Your task to perform on an android device: View the shopping cart on target.com. Search for jbl charge 4 on target.com, select the first entry, and add it to the cart. Image 0: 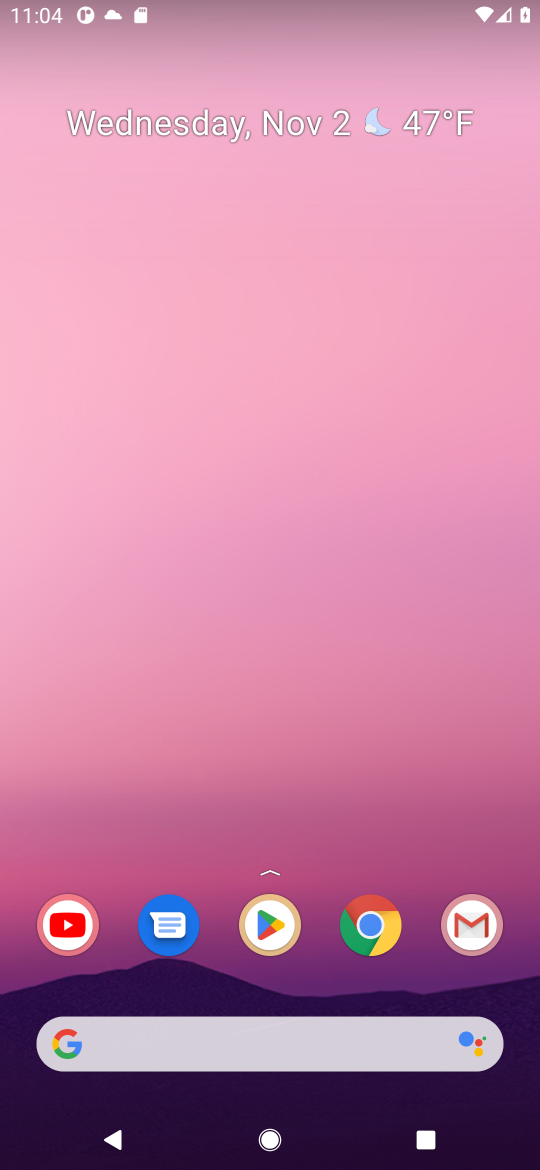
Step 0: click (243, 1042)
Your task to perform on an android device: View the shopping cart on target.com. Search for jbl charge 4 on target.com, select the first entry, and add it to the cart. Image 1: 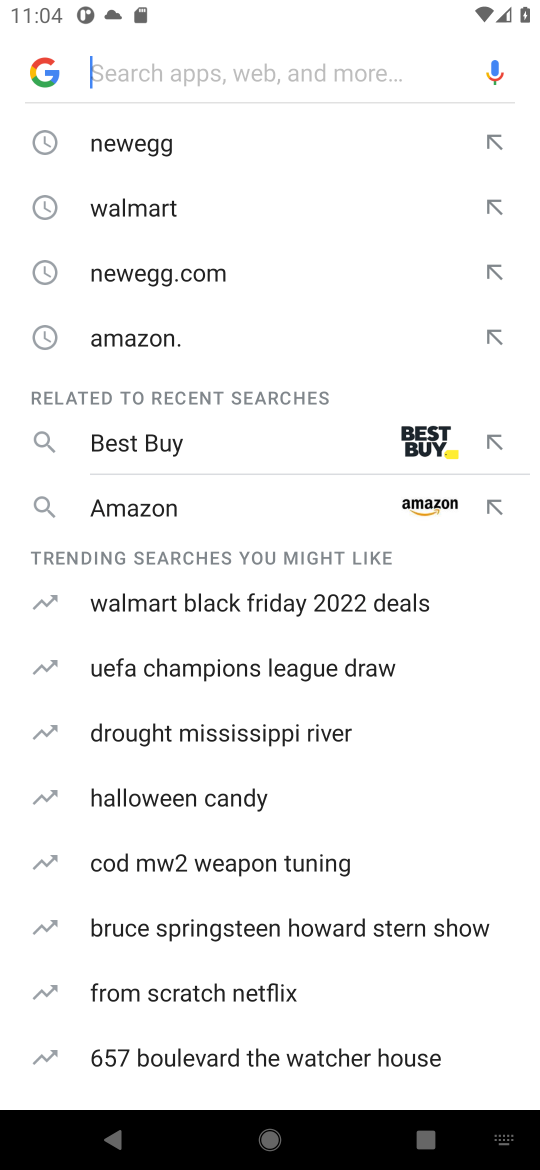
Step 1: type "target"
Your task to perform on an android device: View the shopping cart on target.com. Search for jbl charge 4 on target.com, select the first entry, and add it to the cart. Image 2: 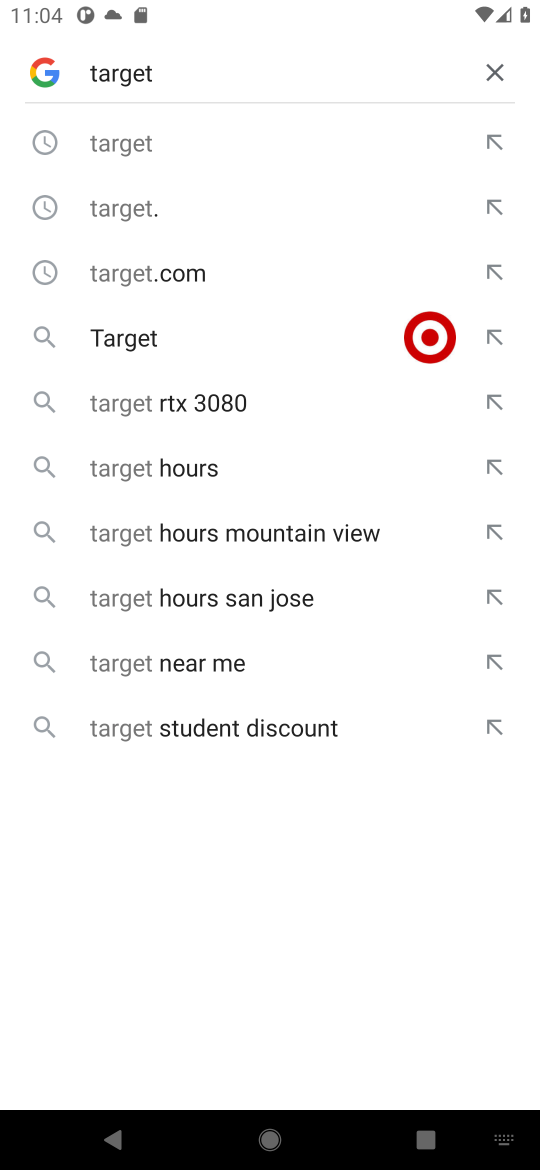
Step 2: click (85, 337)
Your task to perform on an android device: View the shopping cart on target.com. Search for jbl charge 4 on target.com, select the first entry, and add it to the cart. Image 3: 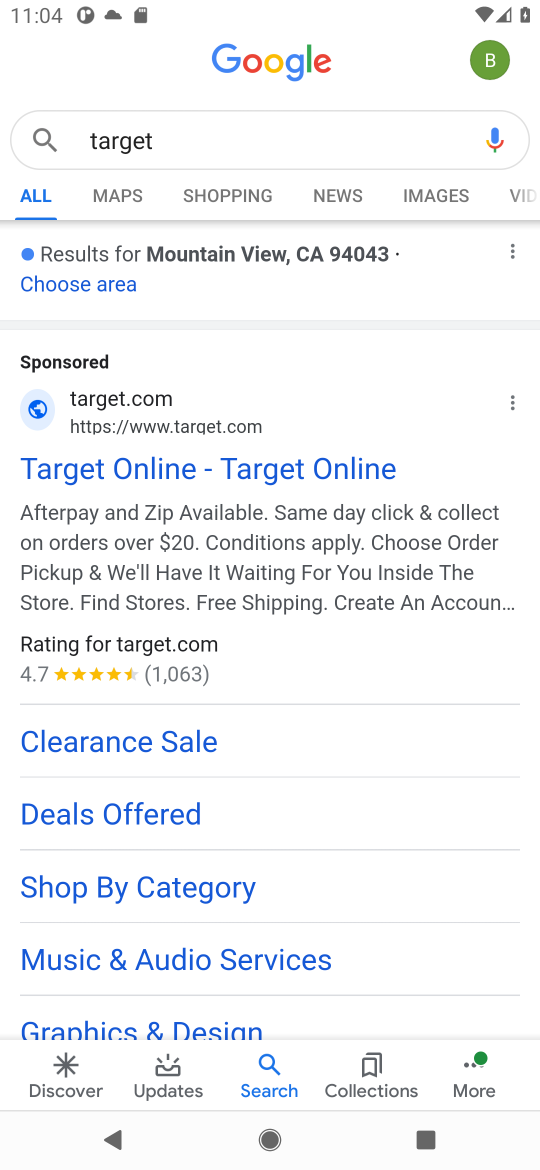
Step 3: click (177, 404)
Your task to perform on an android device: View the shopping cart on target.com. Search for jbl charge 4 on target.com, select the first entry, and add it to the cart. Image 4: 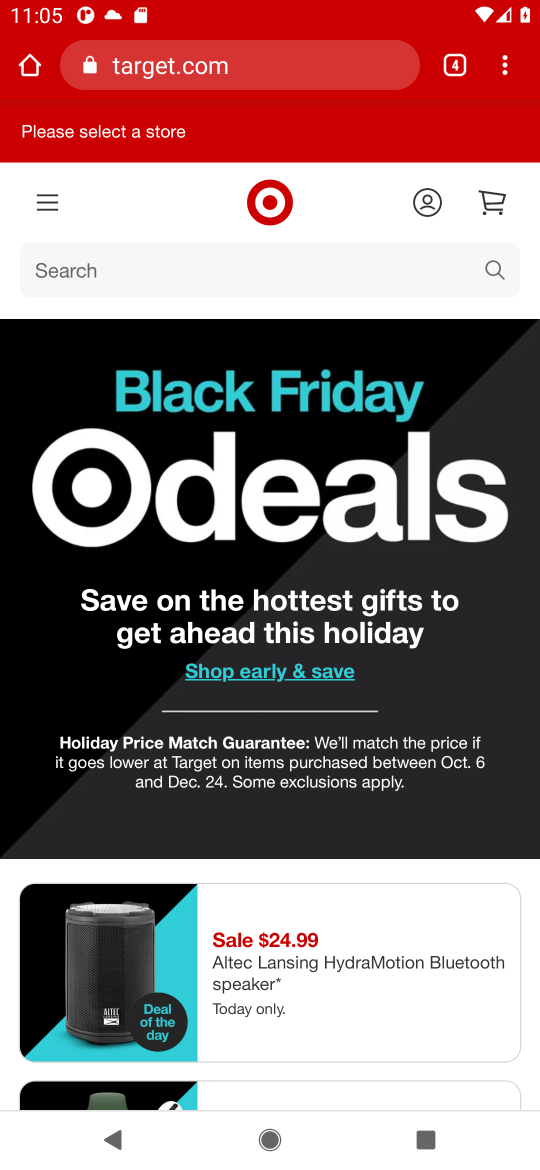
Step 4: click (239, 270)
Your task to perform on an android device: View the shopping cart on target.com. Search for jbl charge 4 on target.com, select the first entry, and add it to the cart. Image 5: 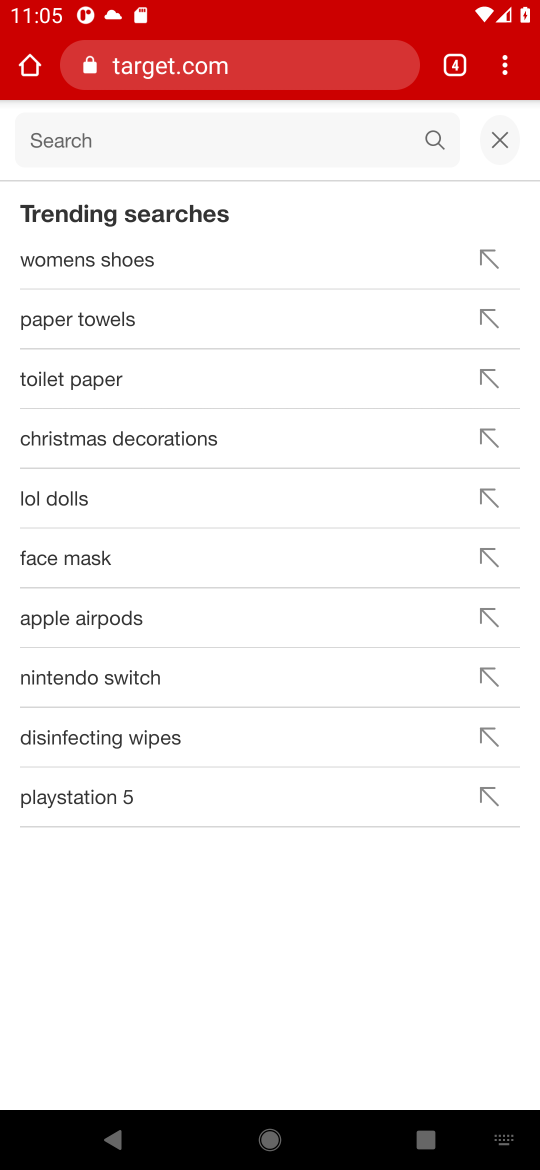
Step 5: type "jbl charge 4"
Your task to perform on an android device: View the shopping cart on target.com. Search for jbl charge 4 on target.com, select the first entry, and add it to the cart. Image 6: 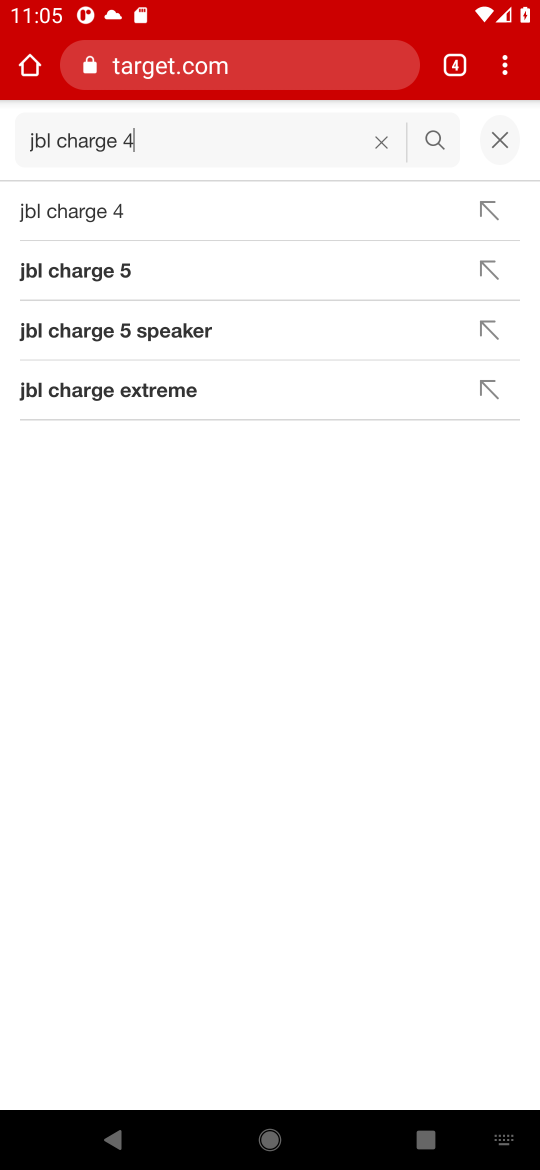
Step 6: click (106, 213)
Your task to perform on an android device: View the shopping cart on target.com. Search for jbl charge 4 on target.com, select the first entry, and add it to the cart. Image 7: 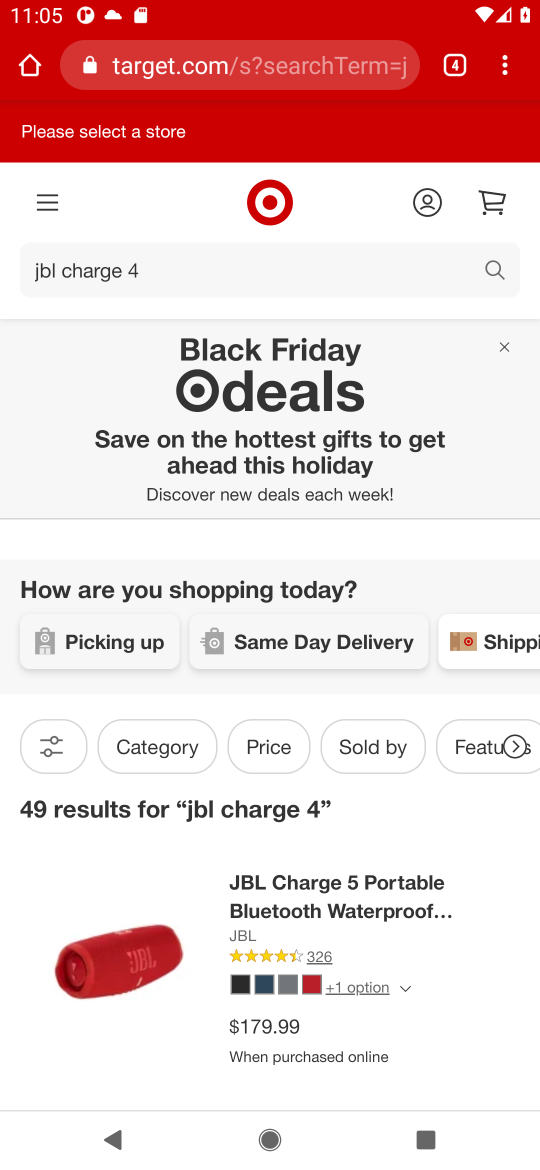
Step 7: drag from (441, 1021) to (419, 394)
Your task to perform on an android device: View the shopping cart on target.com. Search for jbl charge 4 on target.com, select the first entry, and add it to the cart. Image 8: 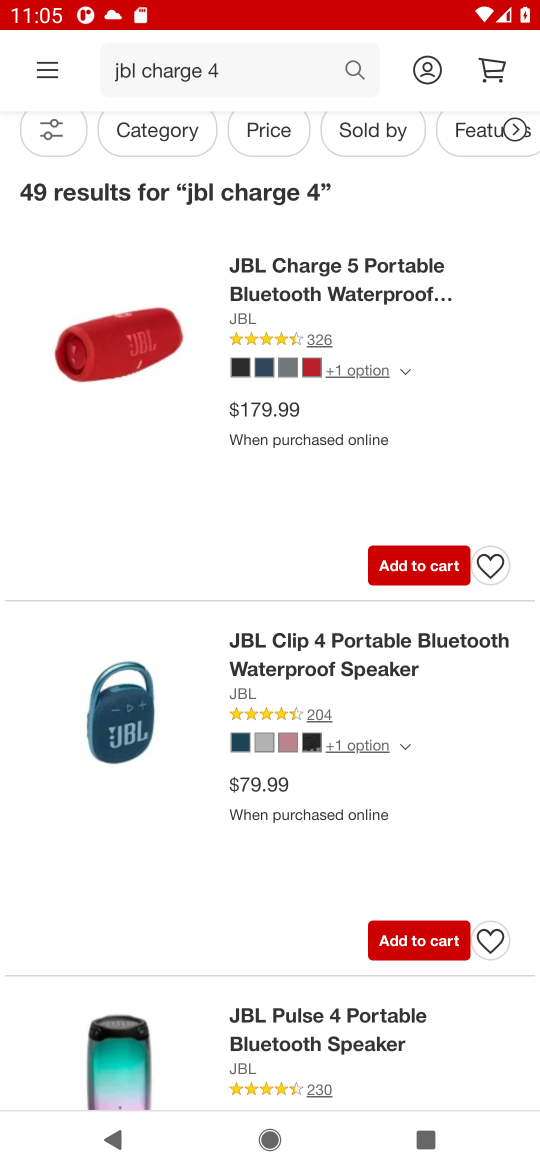
Step 8: click (422, 570)
Your task to perform on an android device: View the shopping cart on target.com. Search for jbl charge 4 on target.com, select the first entry, and add it to the cart. Image 9: 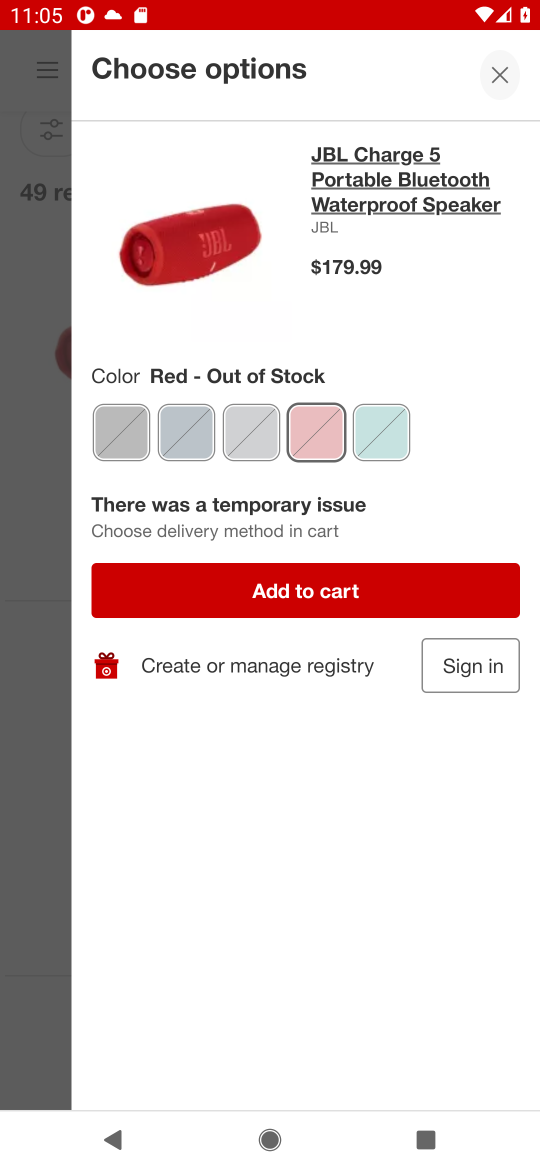
Step 9: click (425, 602)
Your task to perform on an android device: View the shopping cart on target.com. Search for jbl charge 4 on target.com, select the first entry, and add it to the cart. Image 10: 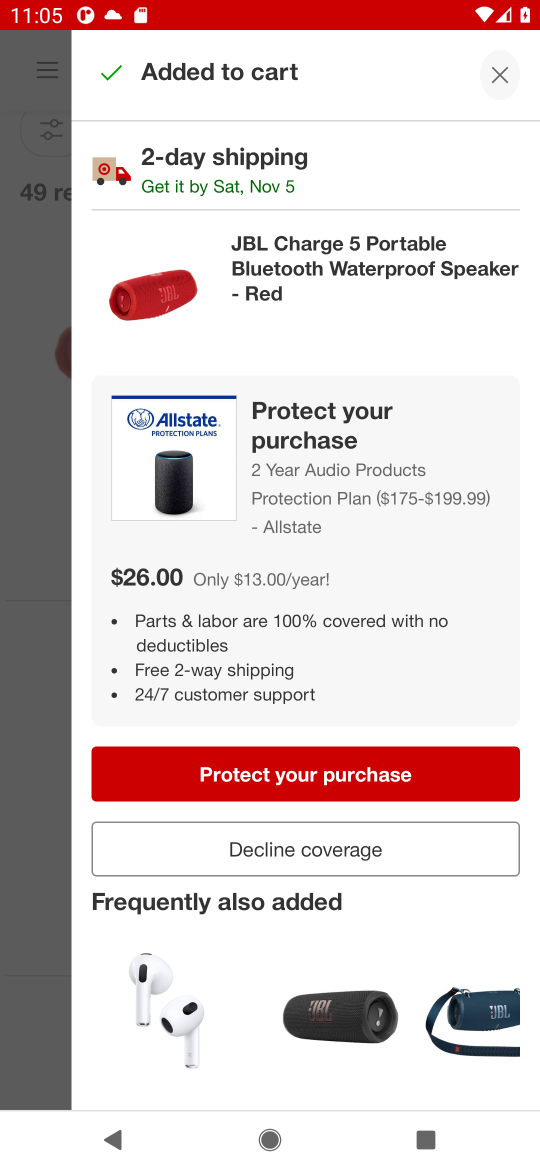
Step 10: task complete